Your task to perform on an android device: toggle pop-ups in chrome Image 0: 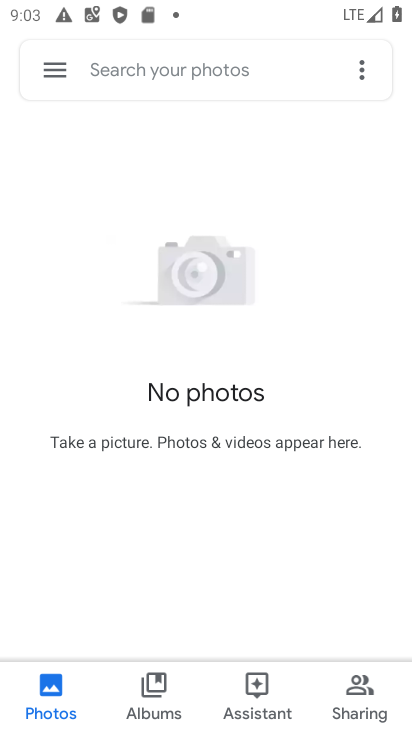
Step 0: press home button
Your task to perform on an android device: toggle pop-ups in chrome Image 1: 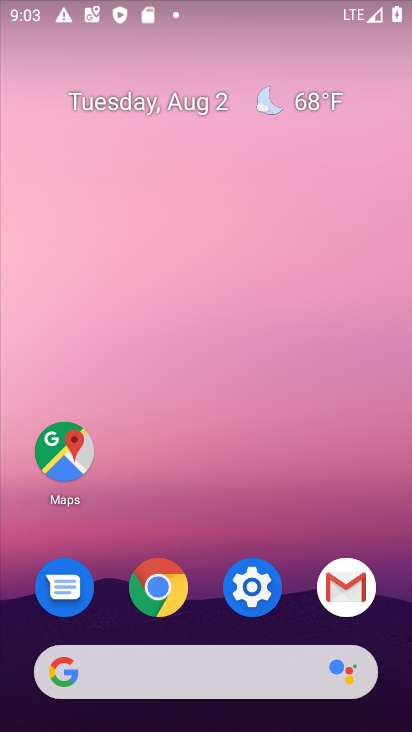
Step 1: click (271, 594)
Your task to perform on an android device: toggle pop-ups in chrome Image 2: 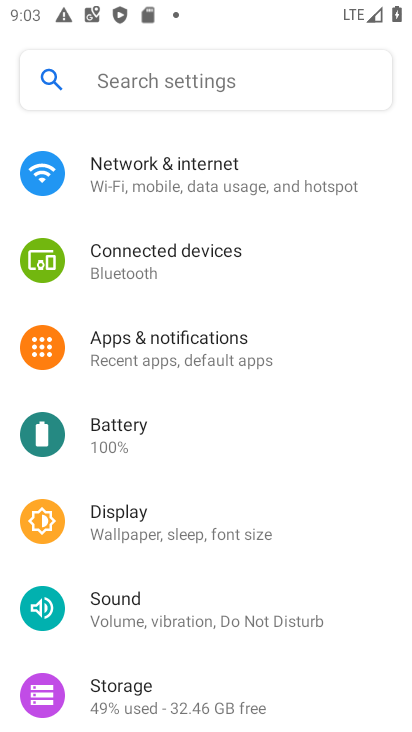
Step 2: press home button
Your task to perform on an android device: toggle pop-ups in chrome Image 3: 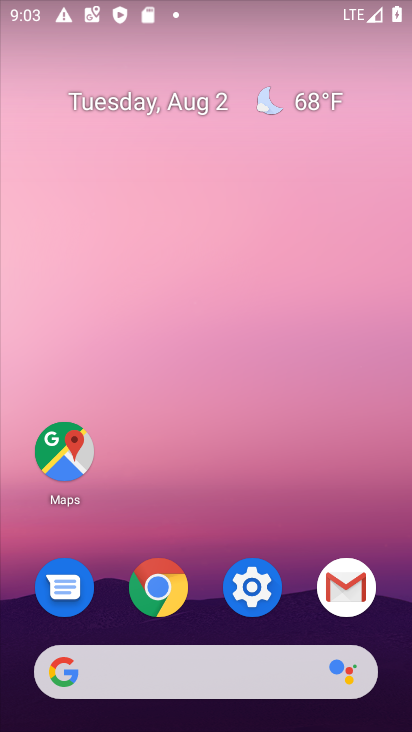
Step 3: click (174, 588)
Your task to perform on an android device: toggle pop-ups in chrome Image 4: 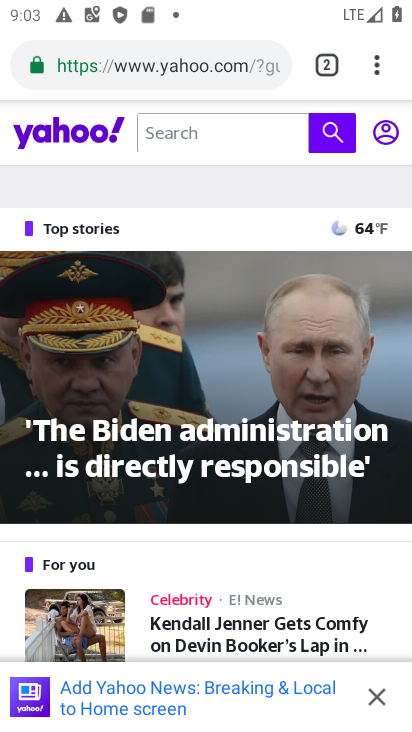
Step 4: click (380, 76)
Your task to perform on an android device: toggle pop-ups in chrome Image 5: 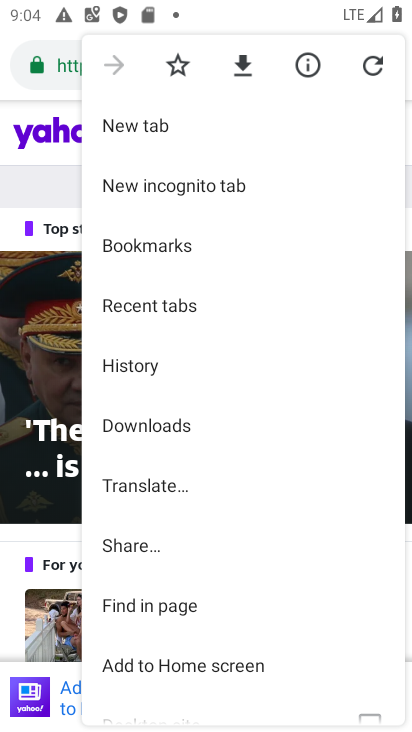
Step 5: drag from (166, 613) to (125, 356)
Your task to perform on an android device: toggle pop-ups in chrome Image 6: 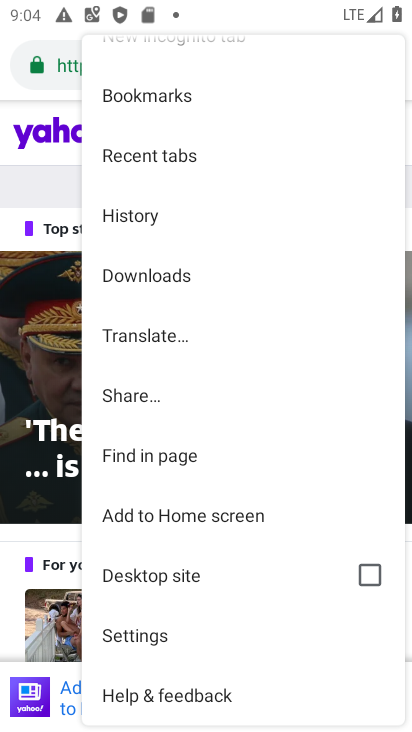
Step 6: click (158, 635)
Your task to perform on an android device: toggle pop-ups in chrome Image 7: 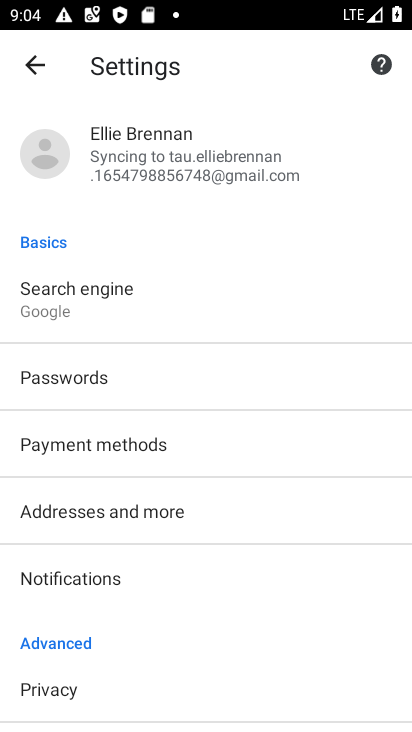
Step 7: drag from (138, 678) to (119, 502)
Your task to perform on an android device: toggle pop-ups in chrome Image 8: 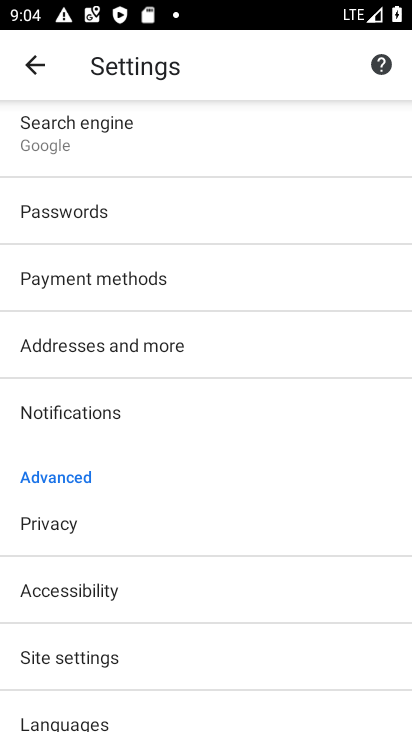
Step 8: click (102, 655)
Your task to perform on an android device: toggle pop-ups in chrome Image 9: 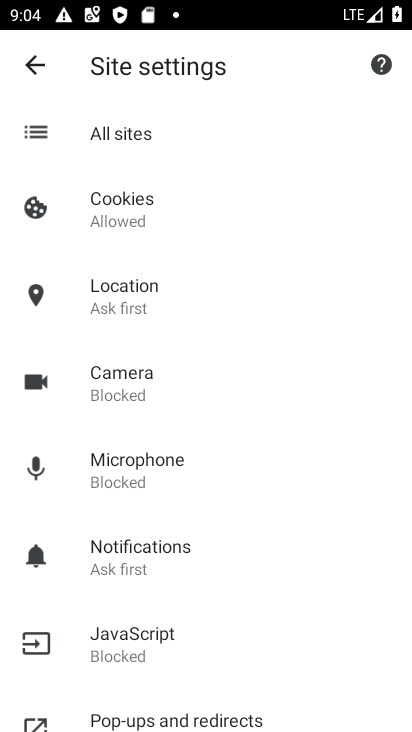
Step 9: click (170, 705)
Your task to perform on an android device: toggle pop-ups in chrome Image 10: 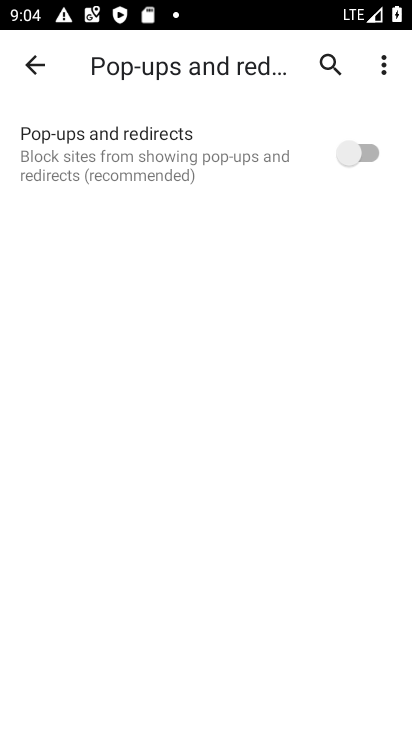
Step 10: click (357, 142)
Your task to perform on an android device: toggle pop-ups in chrome Image 11: 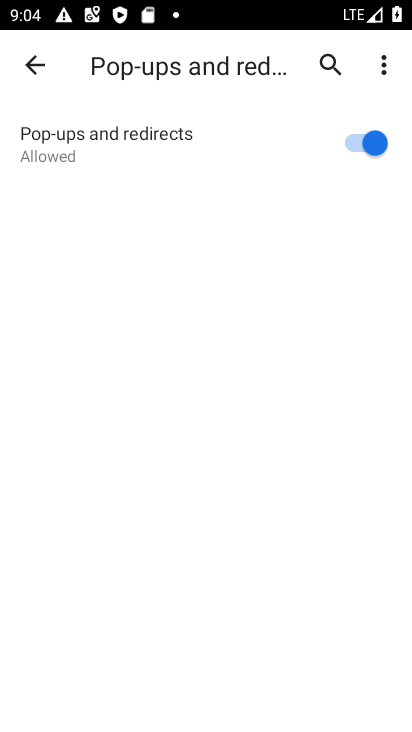
Step 11: task complete